Your task to perform on an android device: open chrome privacy settings Image 0: 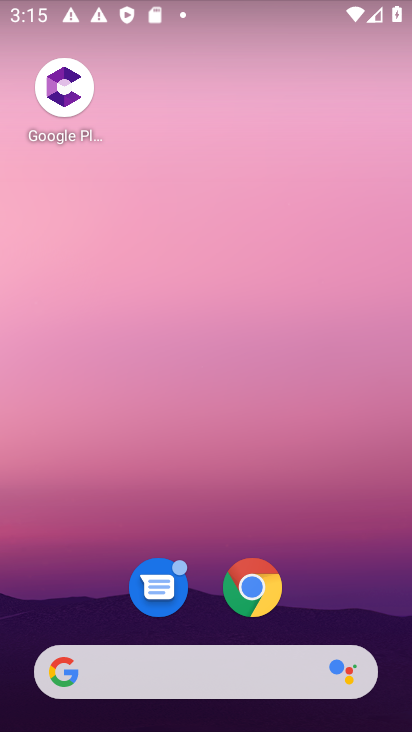
Step 0: click (275, 591)
Your task to perform on an android device: open chrome privacy settings Image 1: 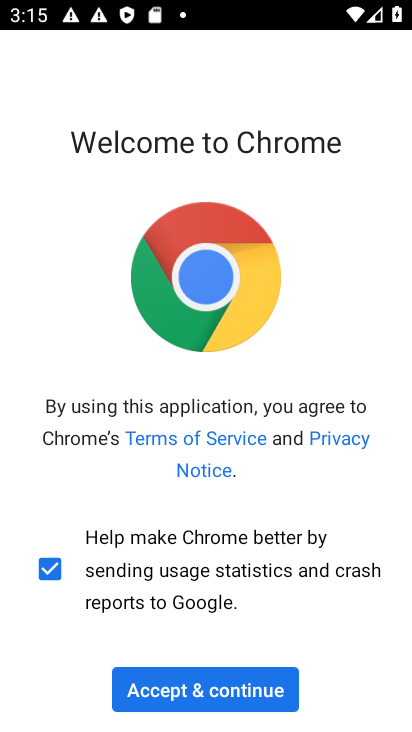
Step 1: click (204, 700)
Your task to perform on an android device: open chrome privacy settings Image 2: 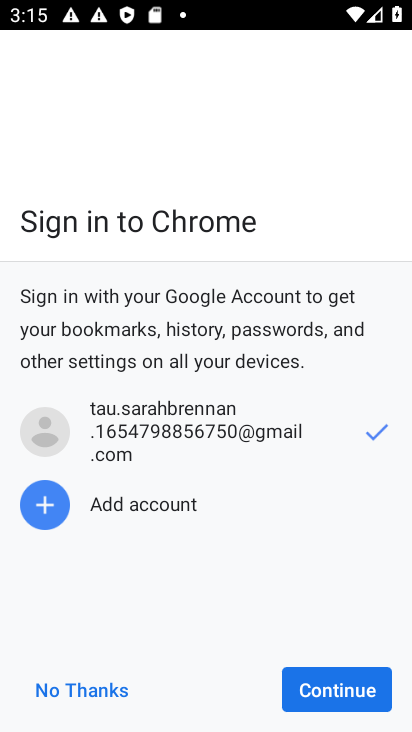
Step 2: click (316, 692)
Your task to perform on an android device: open chrome privacy settings Image 3: 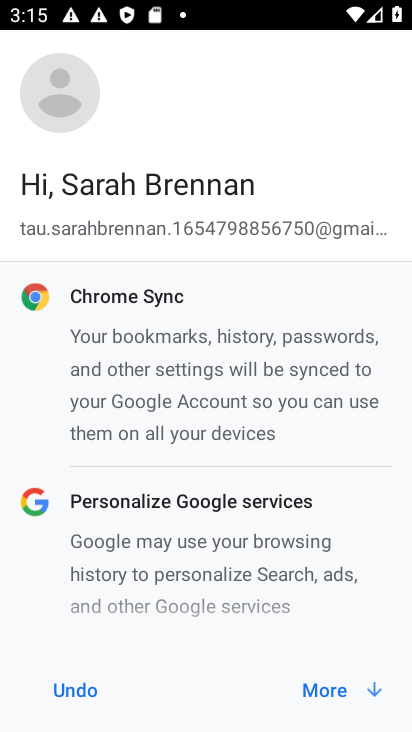
Step 3: click (324, 689)
Your task to perform on an android device: open chrome privacy settings Image 4: 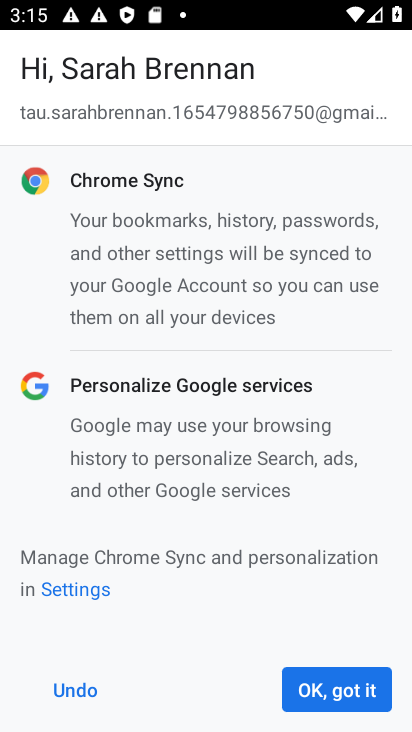
Step 4: click (324, 689)
Your task to perform on an android device: open chrome privacy settings Image 5: 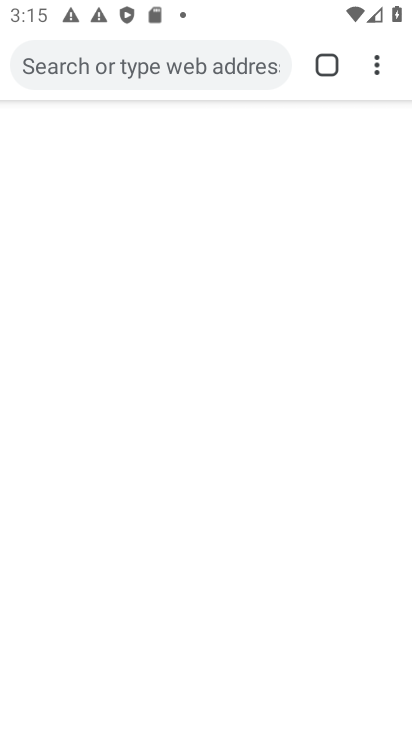
Step 5: task complete